Your task to perform on an android device: change the clock display to digital Image 0: 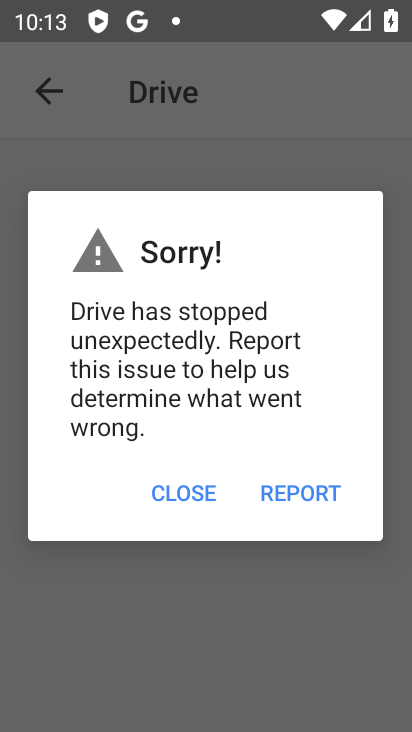
Step 0: press home button
Your task to perform on an android device: change the clock display to digital Image 1: 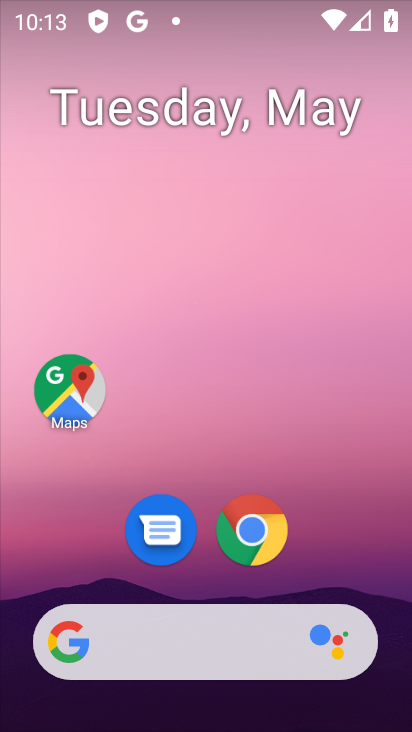
Step 1: drag from (325, 576) to (357, 80)
Your task to perform on an android device: change the clock display to digital Image 2: 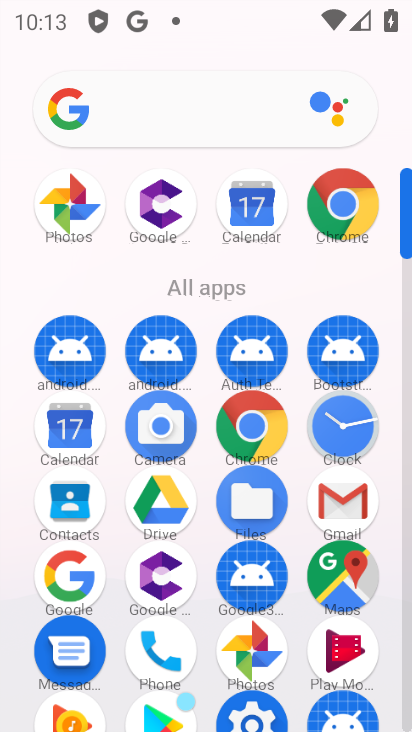
Step 2: click (334, 422)
Your task to perform on an android device: change the clock display to digital Image 3: 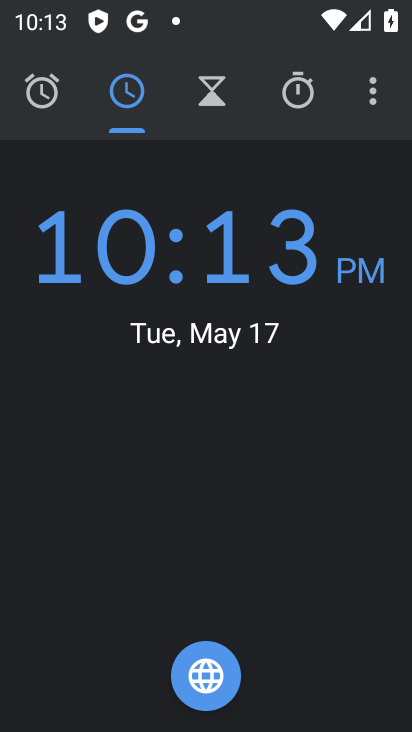
Step 3: click (385, 98)
Your task to perform on an android device: change the clock display to digital Image 4: 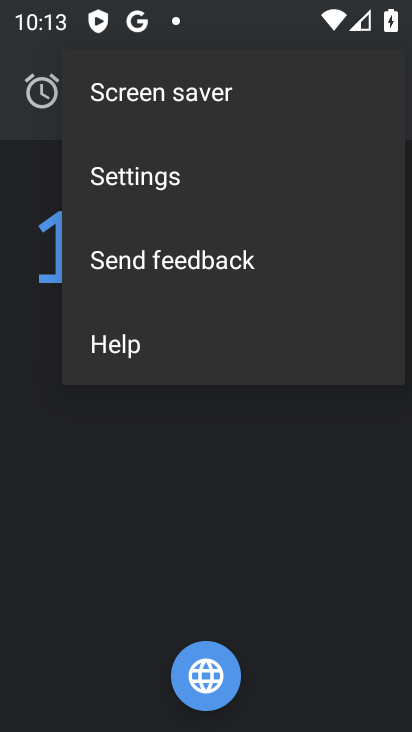
Step 4: click (223, 191)
Your task to perform on an android device: change the clock display to digital Image 5: 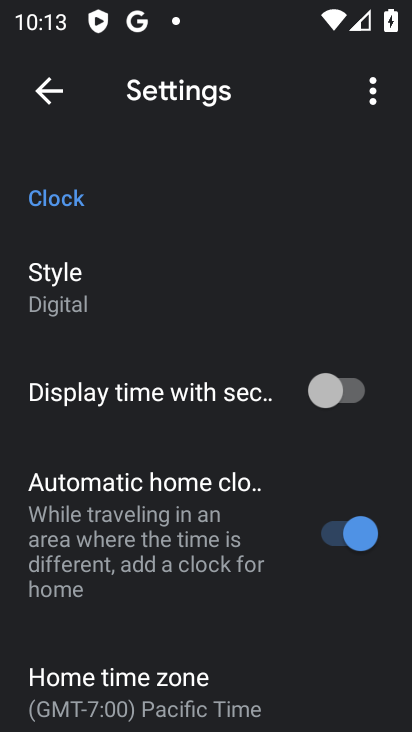
Step 5: task complete